Your task to perform on an android device: Go to notification settings Image 0: 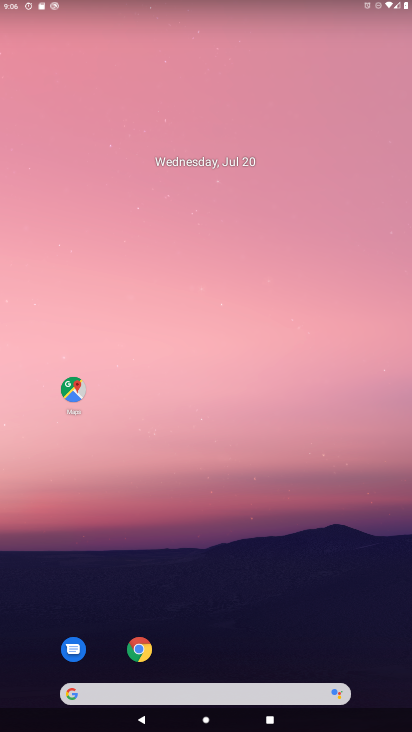
Step 0: drag from (169, 698) to (134, 217)
Your task to perform on an android device: Go to notification settings Image 1: 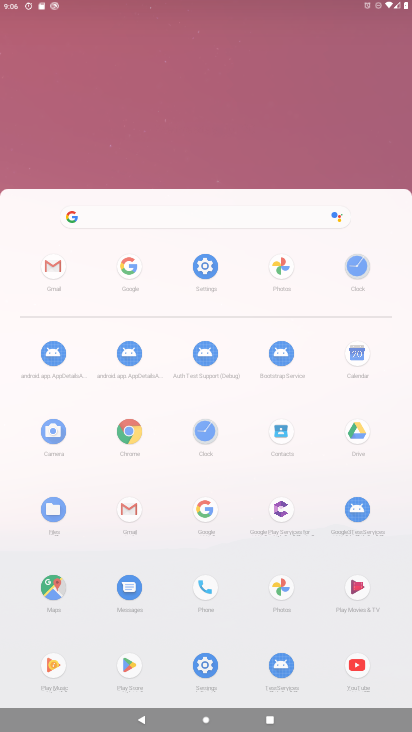
Step 1: drag from (154, 177) to (243, 66)
Your task to perform on an android device: Go to notification settings Image 2: 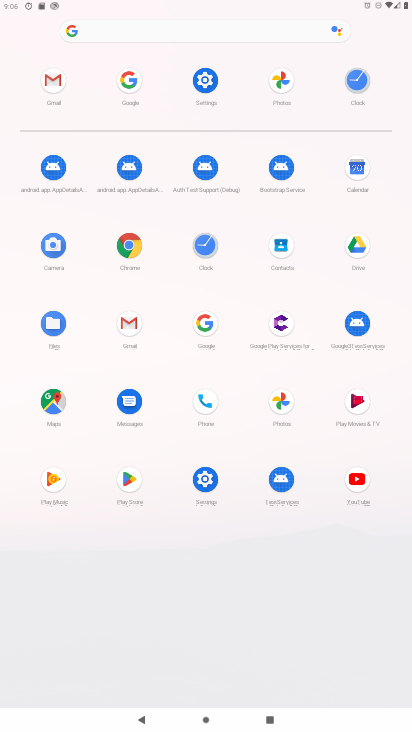
Step 2: click (203, 80)
Your task to perform on an android device: Go to notification settings Image 3: 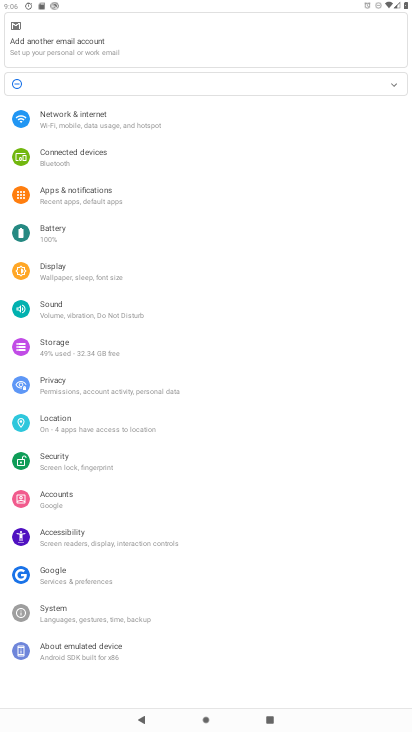
Step 3: click (88, 197)
Your task to perform on an android device: Go to notification settings Image 4: 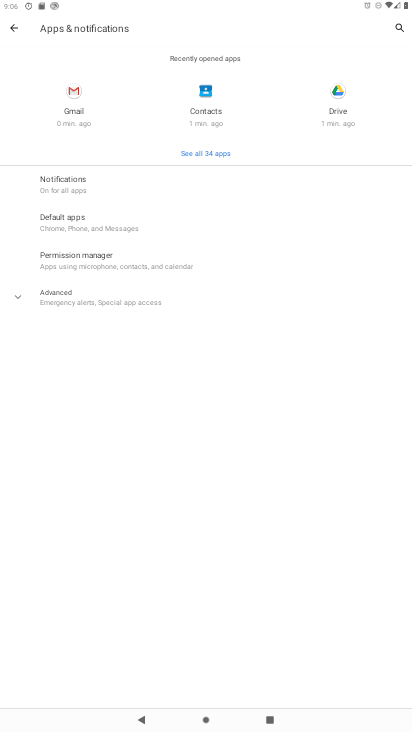
Step 4: click (59, 184)
Your task to perform on an android device: Go to notification settings Image 5: 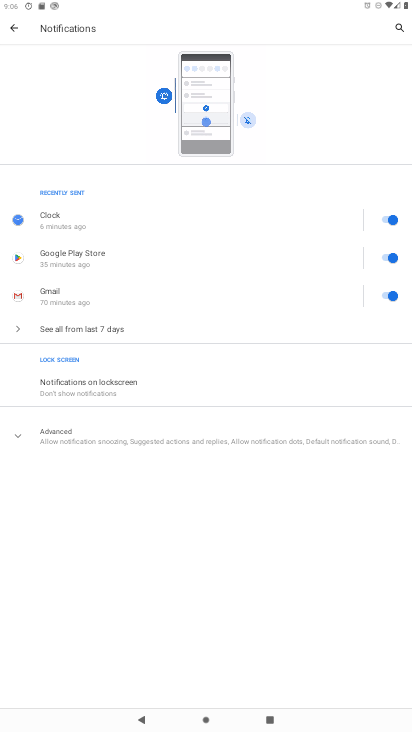
Step 5: task complete